Your task to perform on an android device: Open settings on Google Maps Image 0: 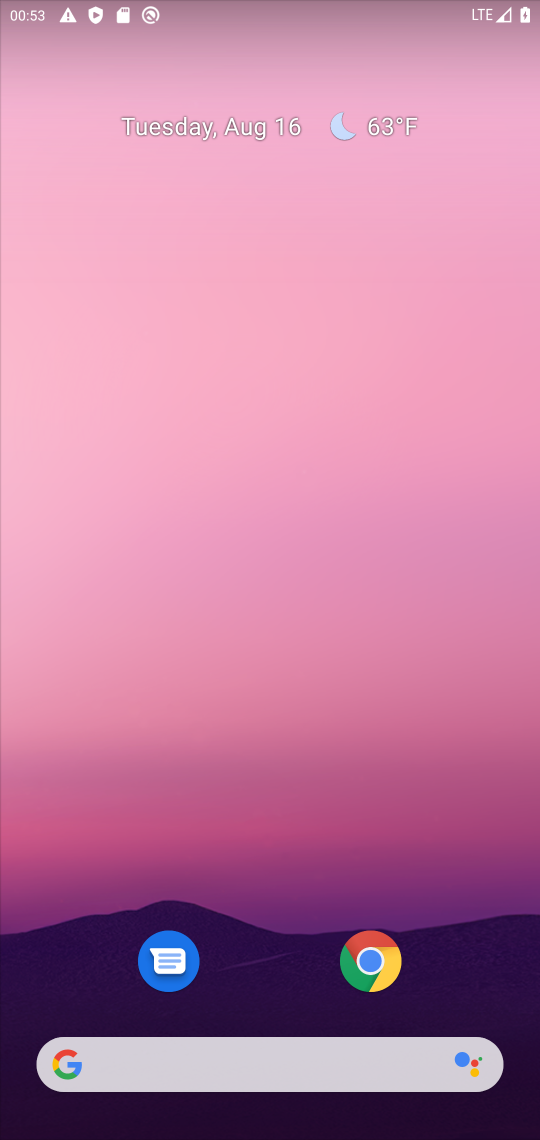
Step 0: press home button
Your task to perform on an android device: Open settings on Google Maps Image 1: 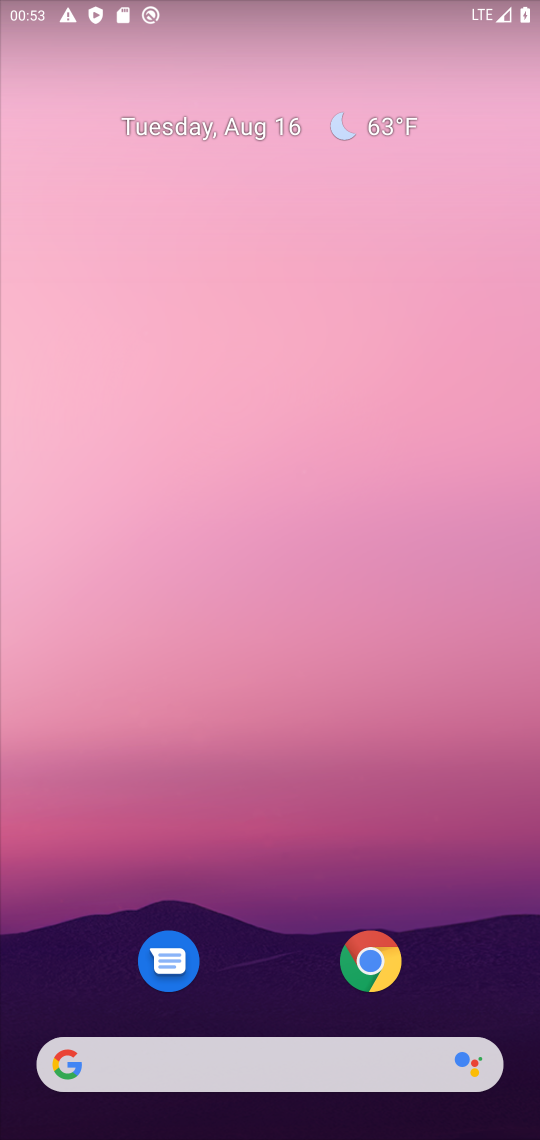
Step 1: drag from (263, 863) to (254, 31)
Your task to perform on an android device: Open settings on Google Maps Image 2: 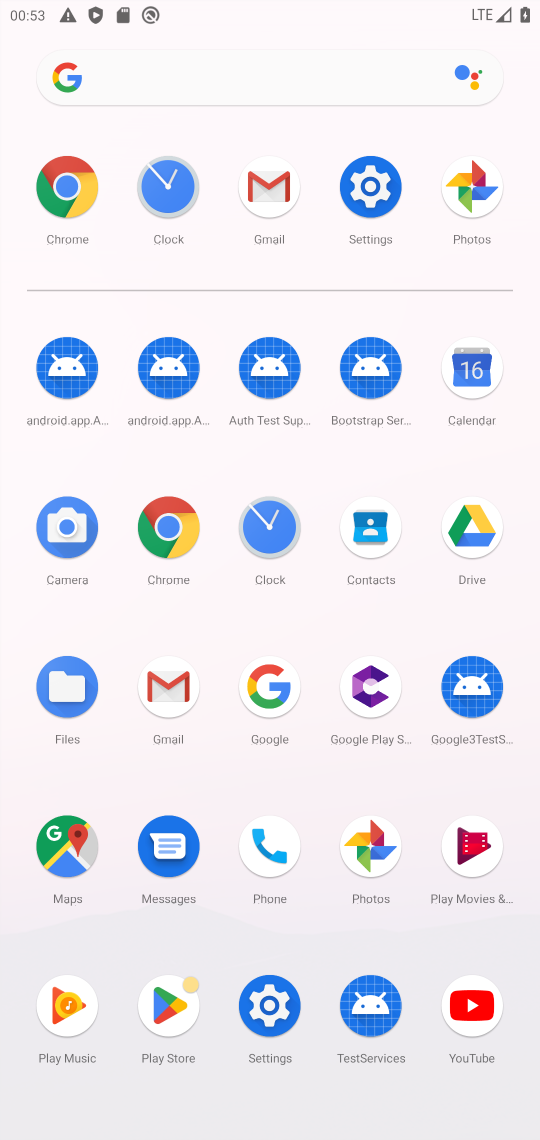
Step 2: click (270, 1026)
Your task to perform on an android device: Open settings on Google Maps Image 3: 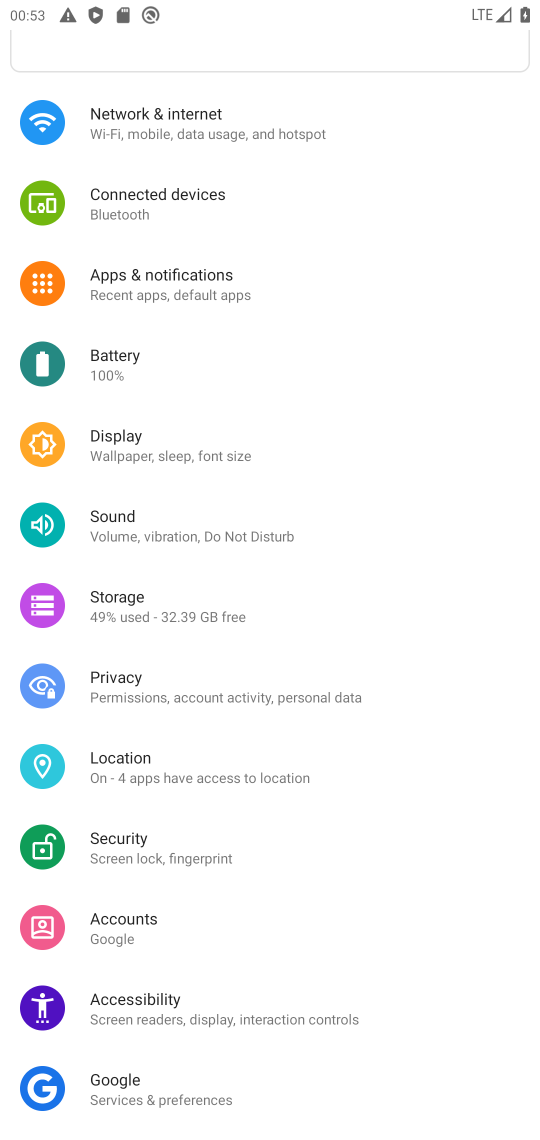
Step 3: press home button
Your task to perform on an android device: Open settings on Google Maps Image 4: 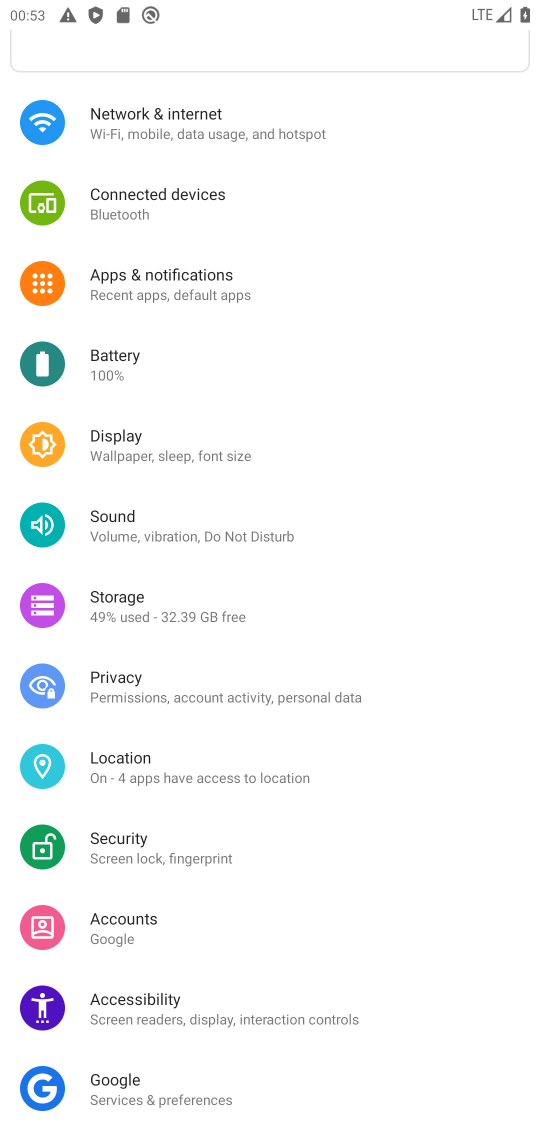
Step 4: drag from (265, 656) to (277, 31)
Your task to perform on an android device: Open settings on Google Maps Image 5: 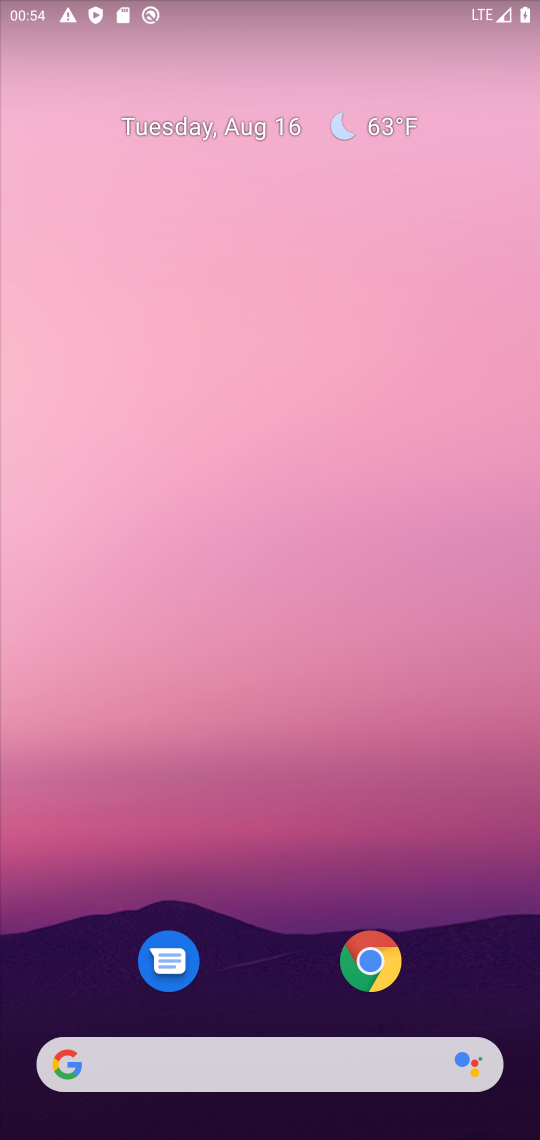
Step 5: drag from (308, 942) to (297, 11)
Your task to perform on an android device: Open settings on Google Maps Image 6: 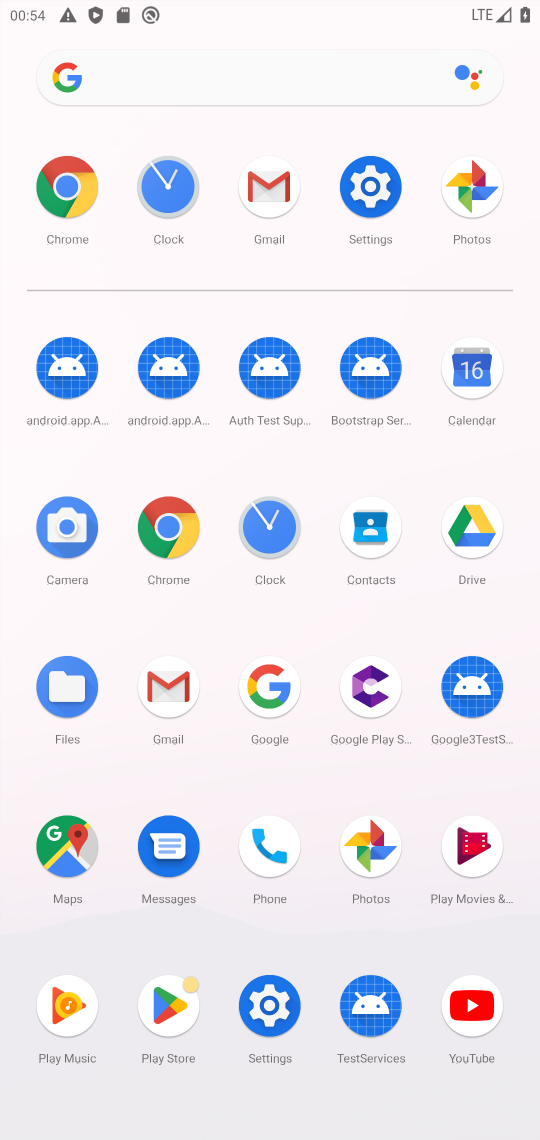
Step 6: click (65, 872)
Your task to perform on an android device: Open settings on Google Maps Image 7: 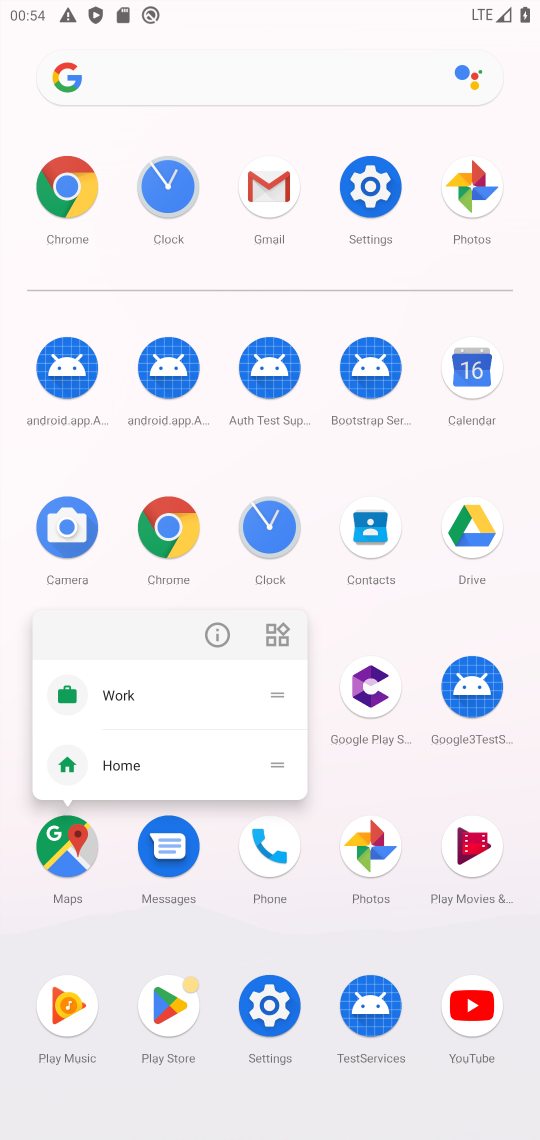
Step 7: click (67, 845)
Your task to perform on an android device: Open settings on Google Maps Image 8: 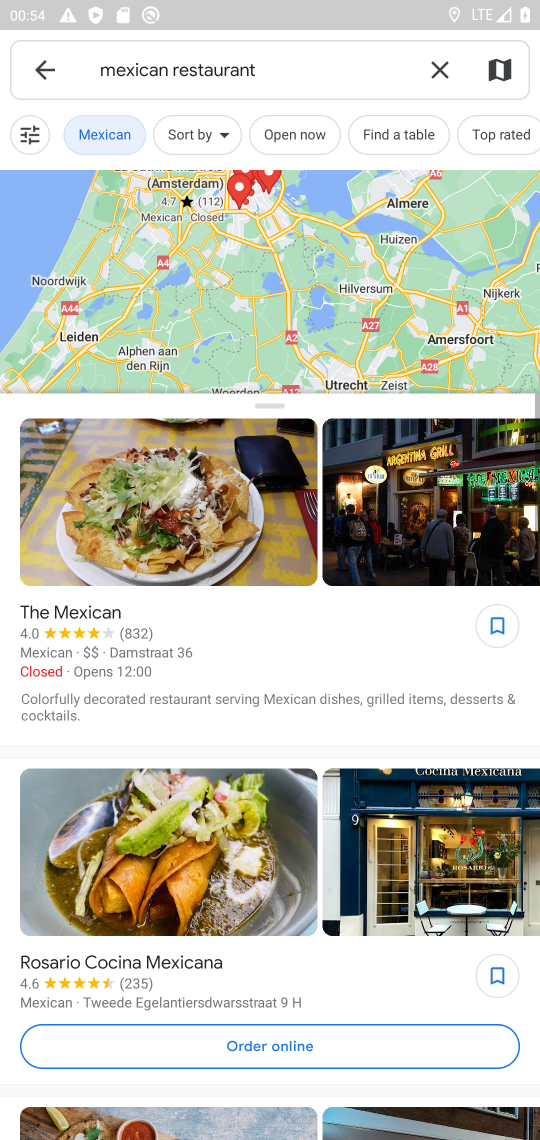
Step 8: click (45, 77)
Your task to perform on an android device: Open settings on Google Maps Image 9: 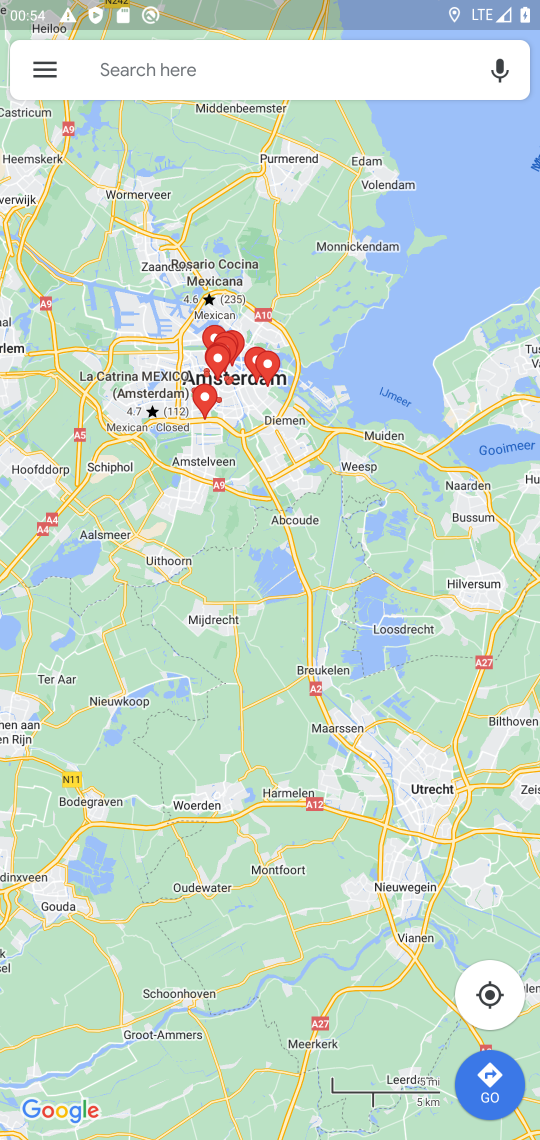
Step 9: click (45, 77)
Your task to perform on an android device: Open settings on Google Maps Image 10: 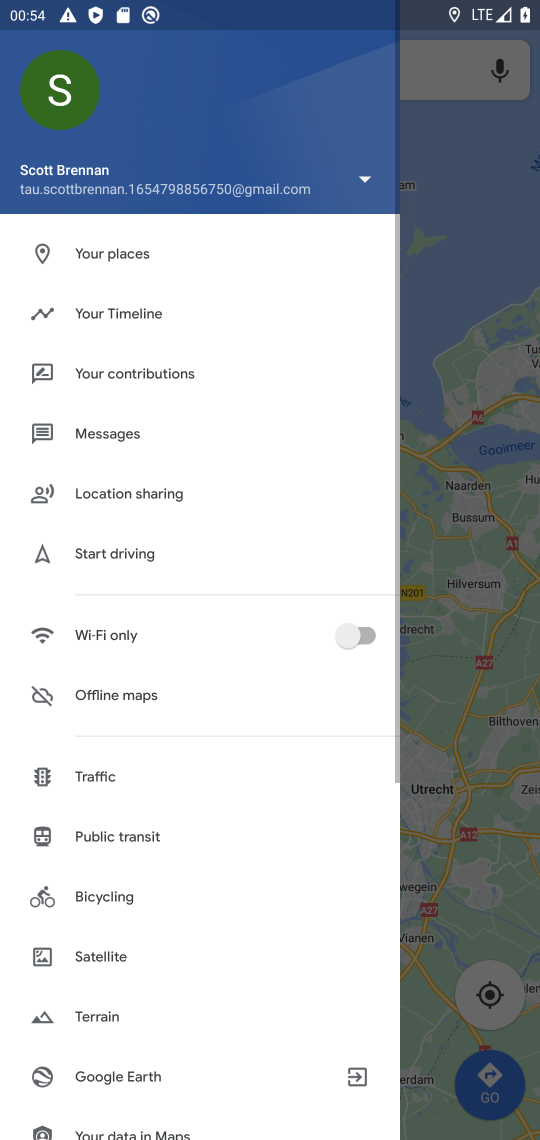
Step 10: drag from (147, 1081) to (250, 117)
Your task to perform on an android device: Open settings on Google Maps Image 11: 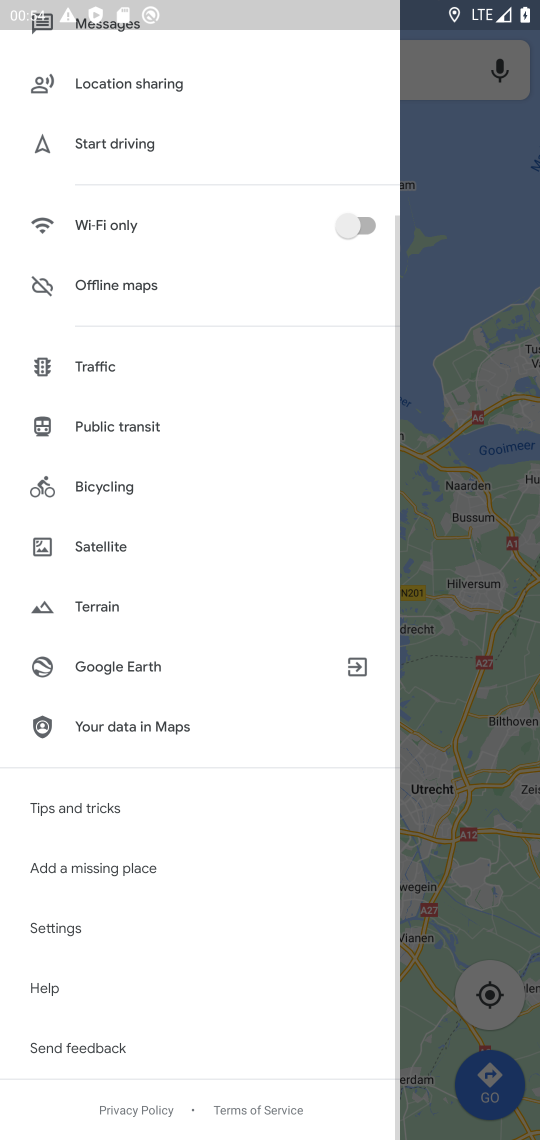
Step 11: click (48, 933)
Your task to perform on an android device: Open settings on Google Maps Image 12: 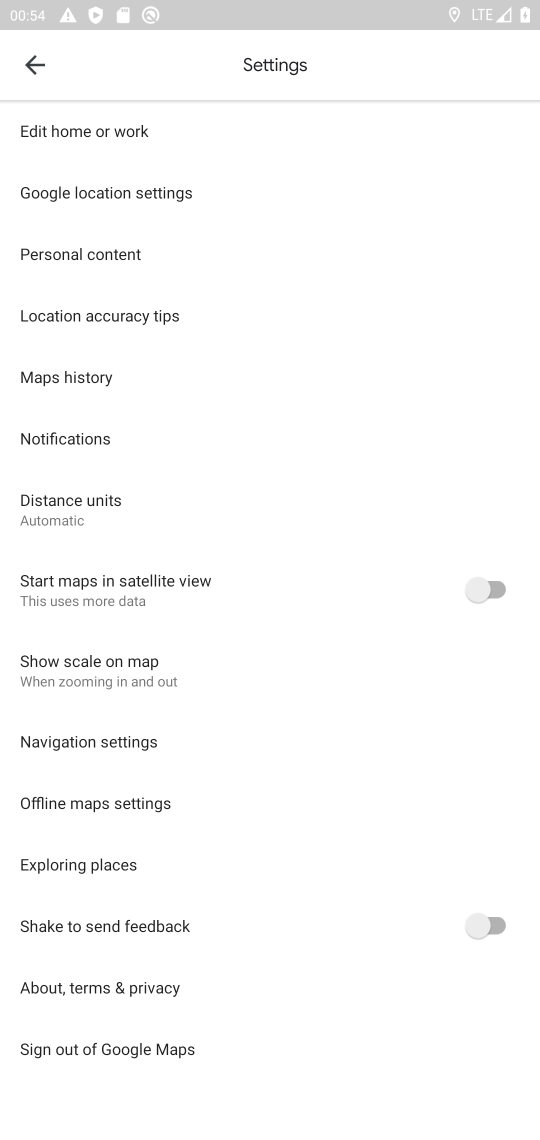
Step 12: task complete